Your task to perform on an android device: Open Google Image 0: 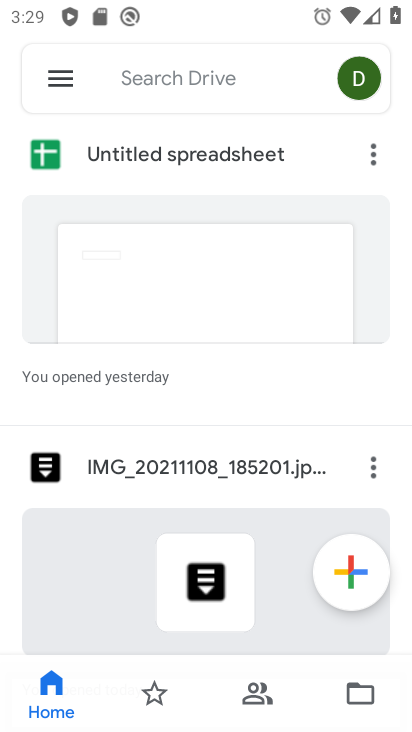
Step 0: press home button
Your task to perform on an android device: Open Google Image 1: 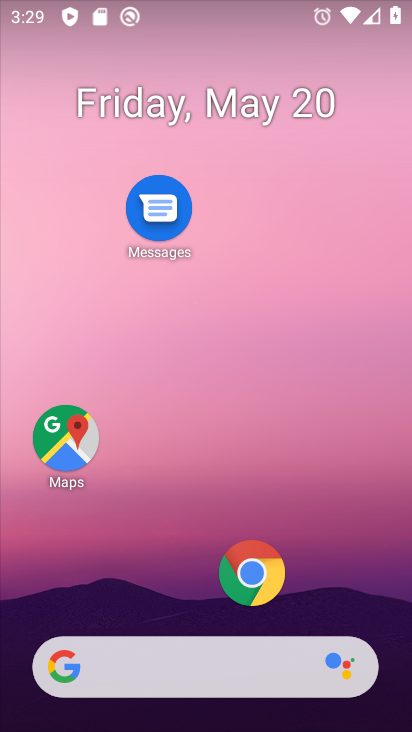
Step 1: click (172, 664)
Your task to perform on an android device: Open Google Image 2: 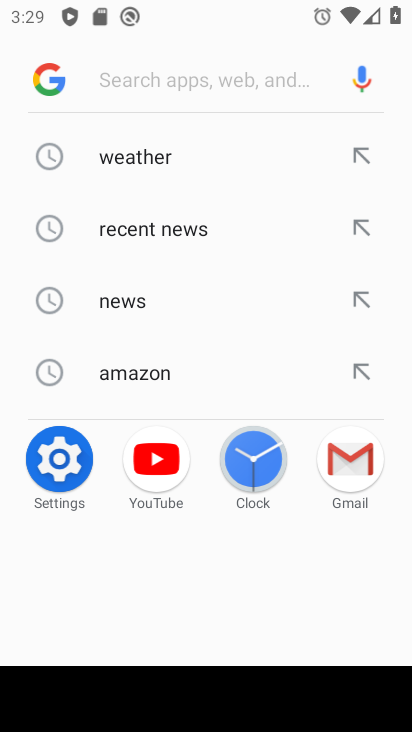
Step 2: task complete